Your task to perform on an android device: What's the weather today? Image 0: 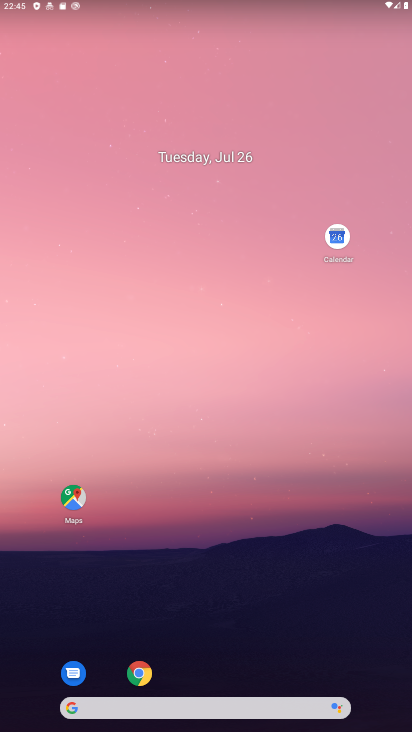
Step 0: press back button
Your task to perform on an android device: What's the weather today? Image 1: 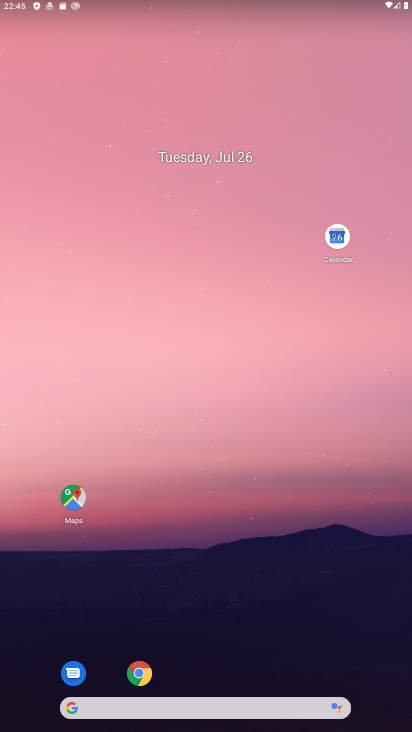
Step 1: drag from (191, 577) to (85, 23)
Your task to perform on an android device: What's the weather today? Image 2: 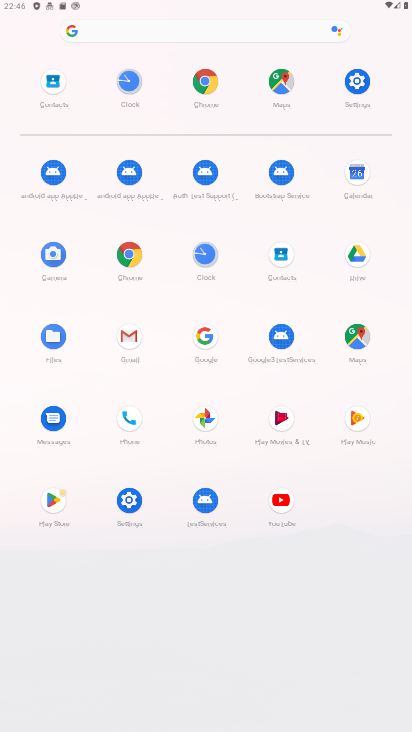
Step 2: click (205, 84)
Your task to perform on an android device: What's the weather today? Image 3: 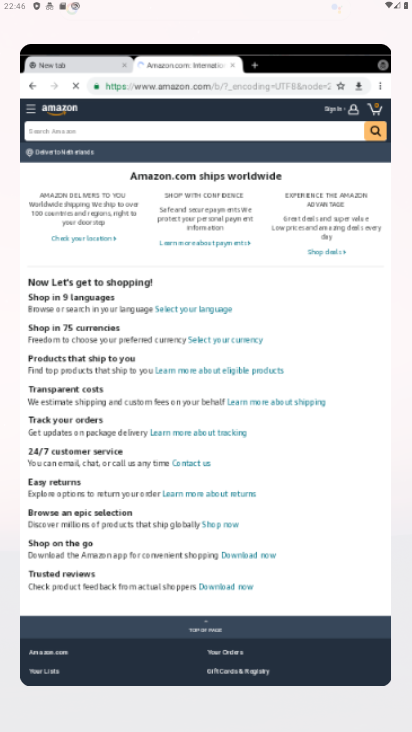
Step 3: click (205, 77)
Your task to perform on an android device: What's the weather today? Image 4: 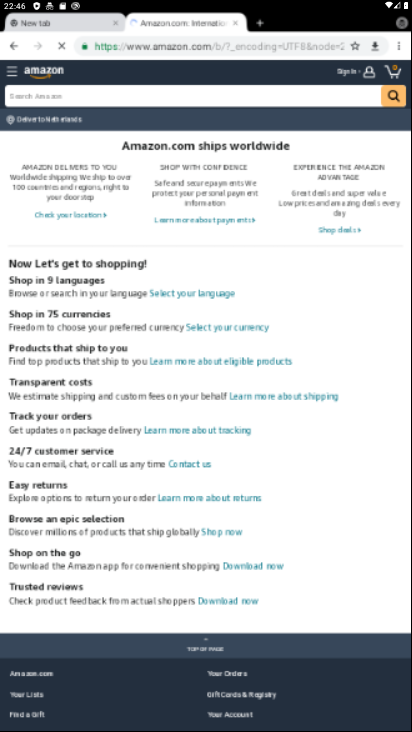
Step 4: click (209, 73)
Your task to perform on an android device: What's the weather today? Image 5: 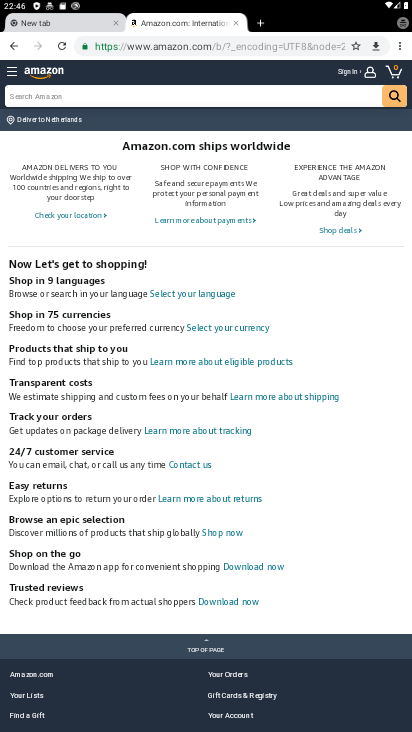
Step 5: drag from (399, 46) to (314, 43)
Your task to perform on an android device: What's the weather today? Image 6: 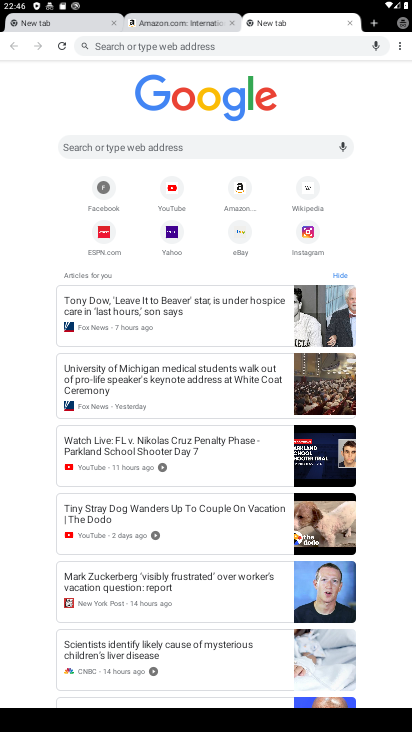
Step 6: click (110, 153)
Your task to perform on an android device: What's the weather today? Image 7: 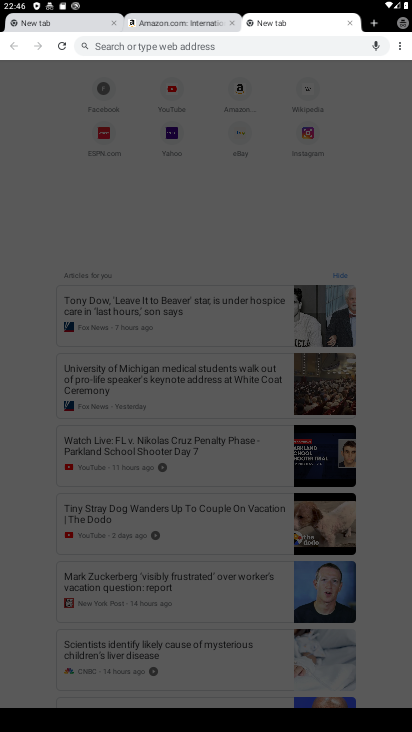
Step 7: type "weather"
Your task to perform on an android device: What's the weather today? Image 8: 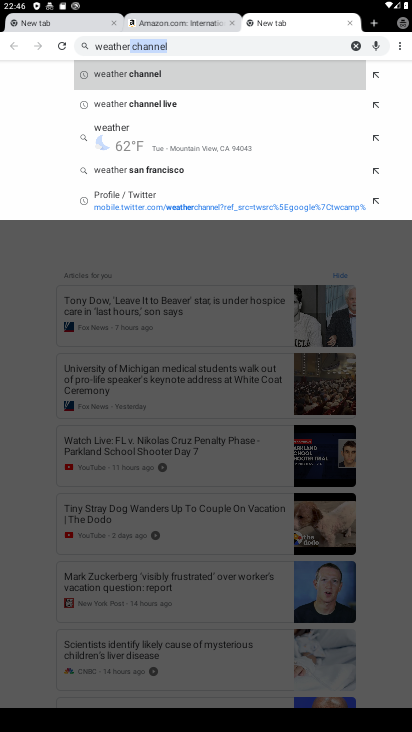
Step 8: click (194, 37)
Your task to perform on an android device: What's the weather today? Image 9: 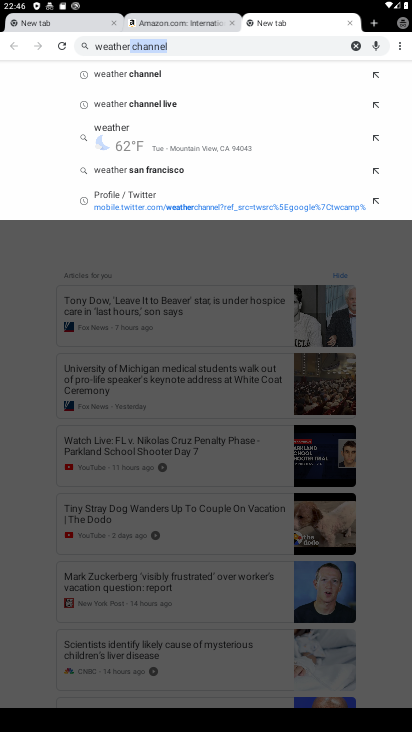
Step 9: click (180, 48)
Your task to perform on an android device: What's the weather today? Image 10: 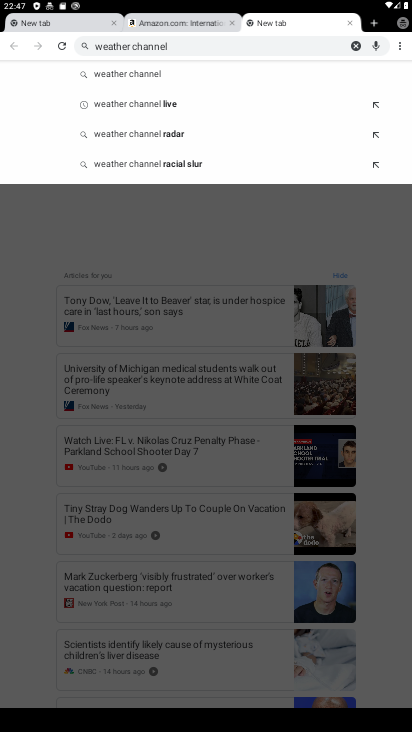
Step 10: click (136, 83)
Your task to perform on an android device: What's the weather today? Image 11: 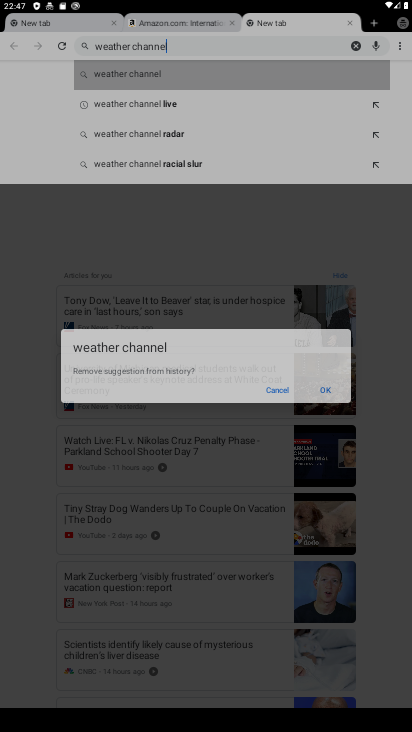
Step 11: click (137, 76)
Your task to perform on an android device: What's the weather today? Image 12: 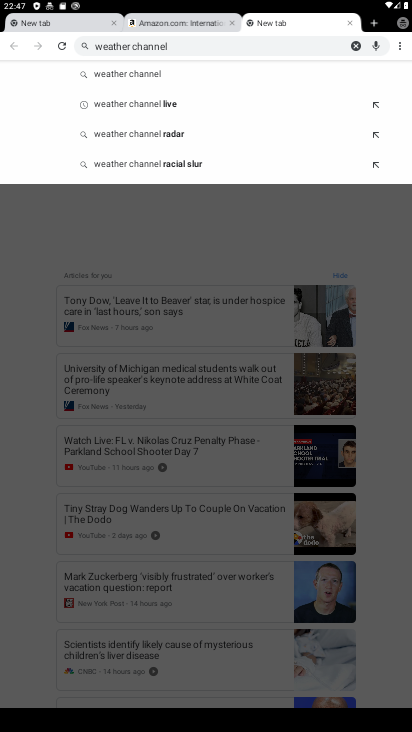
Step 12: task complete